Your task to perform on an android device: allow notifications from all sites in the chrome app Image 0: 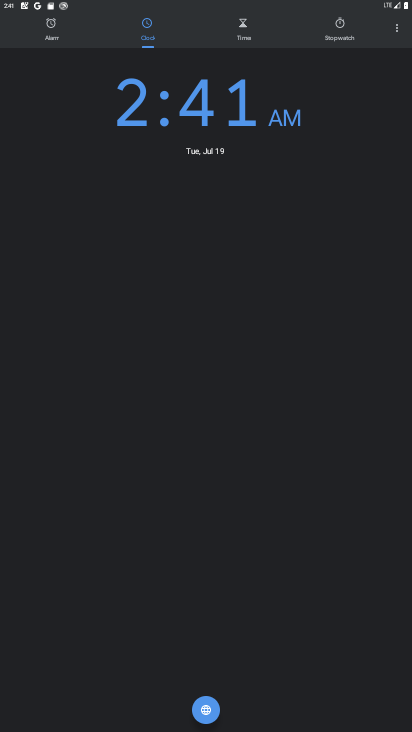
Step 0: press home button
Your task to perform on an android device: allow notifications from all sites in the chrome app Image 1: 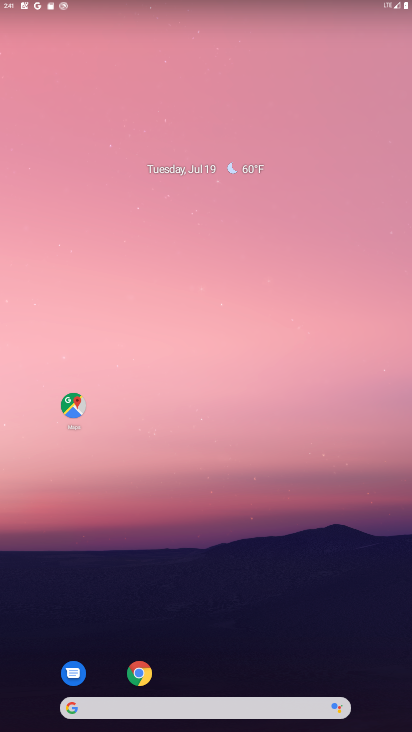
Step 1: click (139, 664)
Your task to perform on an android device: allow notifications from all sites in the chrome app Image 2: 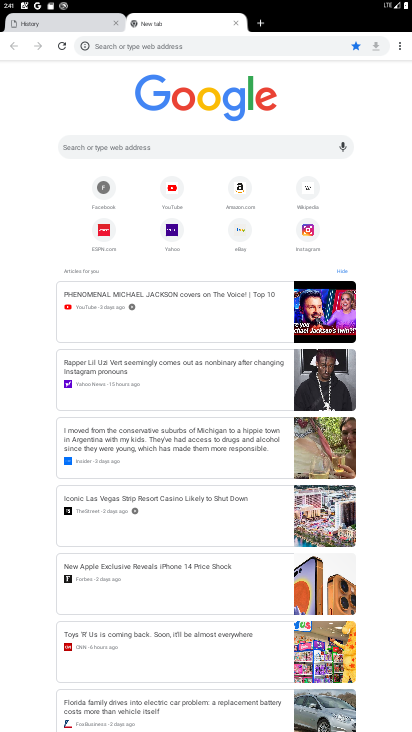
Step 2: click (401, 43)
Your task to perform on an android device: allow notifications from all sites in the chrome app Image 3: 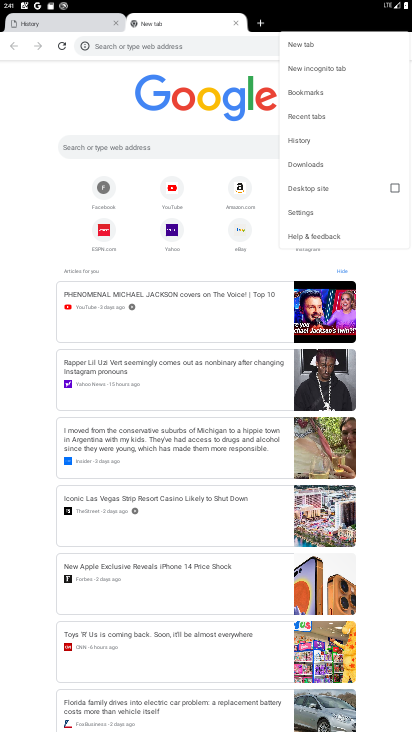
Step 3: click (317, 211)
Your task to perform on an android device: allow notifications from all sites in the chrome app Image 4: 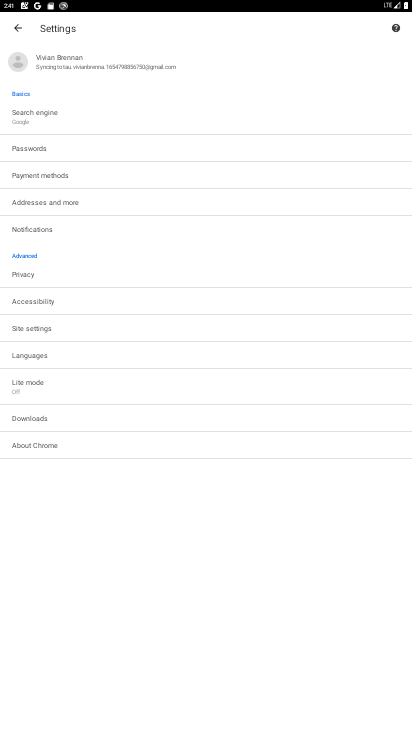
Step 4: click (71, 226)
Your task to perform on an android device: allow notifications from all sites in the chrome app Image 5: 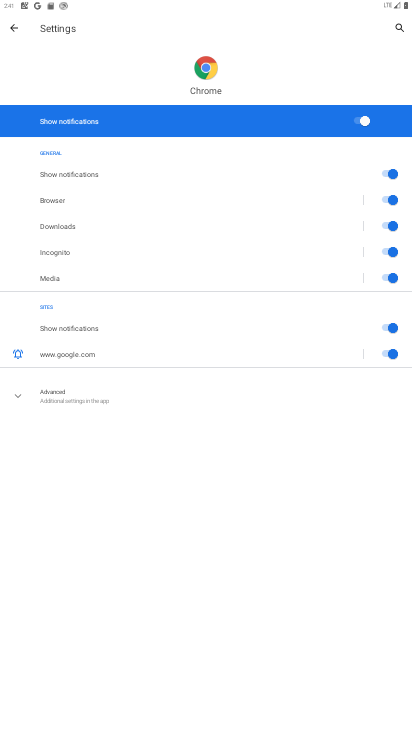
Step 5: task complete